Your task to perform on an android device: toggle improve location accuracy Image 0: 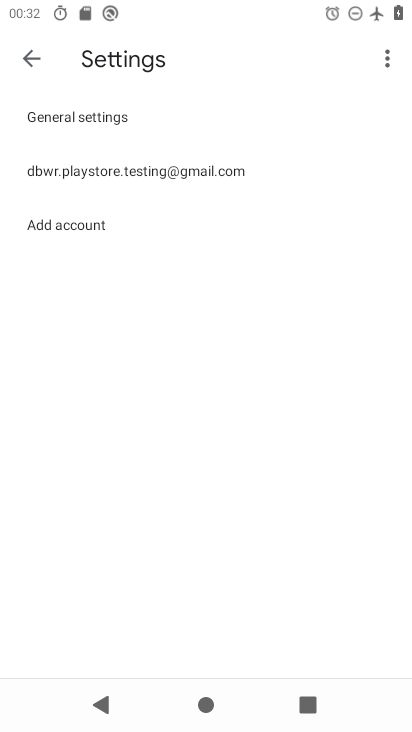
Step 0: click (409, 208)
Your task to perform on an android device: toggle improve location accuracy Image 1: 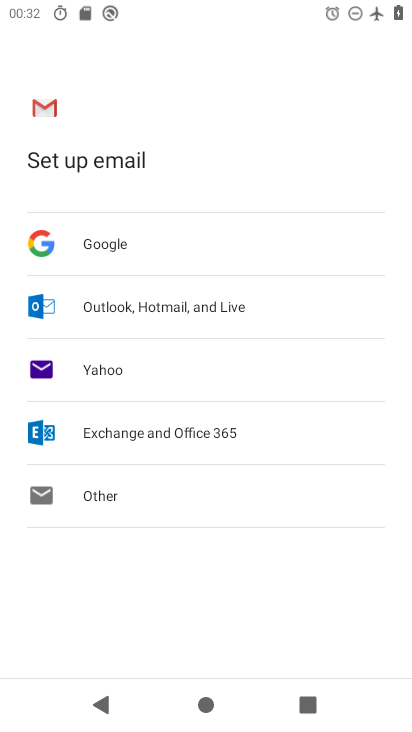
Step 1: press home button
Your task to perform on an android device: toggle improve location accuracy Image 2: 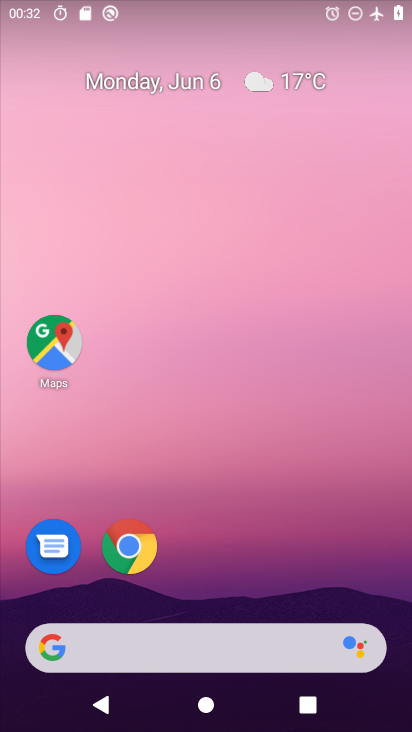
Step 2: drag from (174, 569) to (183, 1)
Your task to perform on an android device: toggle improve location accuracy Image 3: 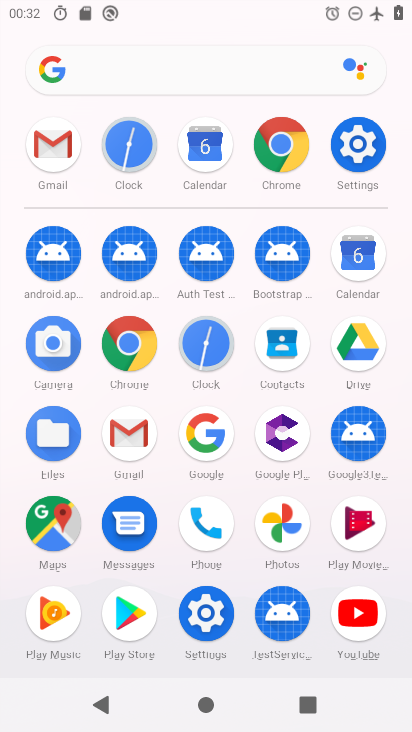
Step 3: click (204, 610)
Your task to perform on an android device: toggle improve location accuracy Image 4: 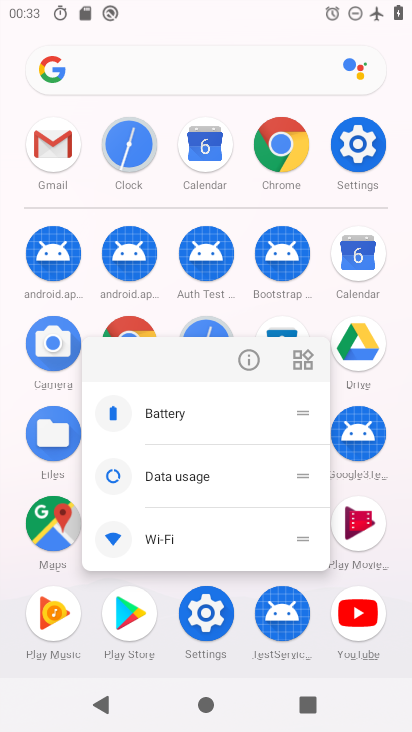
Step 4: click (254, 346)
Your task to perform on an android device: toggle improve location accuracy Image 5: 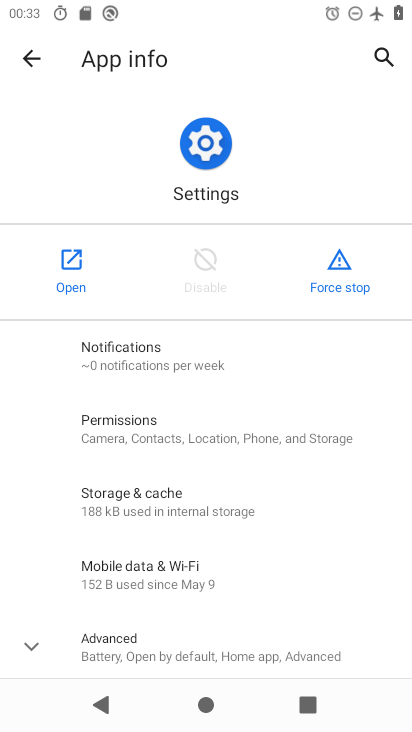
Step 5: click (60, 273)
Your task to perform on an android device: toggle improve location accuracy Image 6: 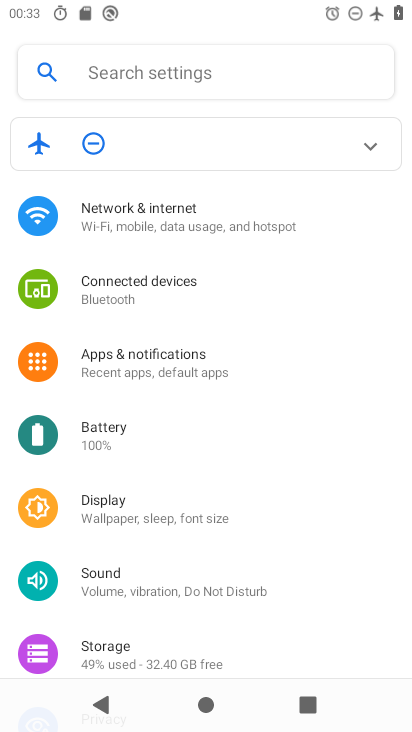
Step 6: click (257, 94)
Your task to perform on an android device: toggle improve location accuracy Image 7: 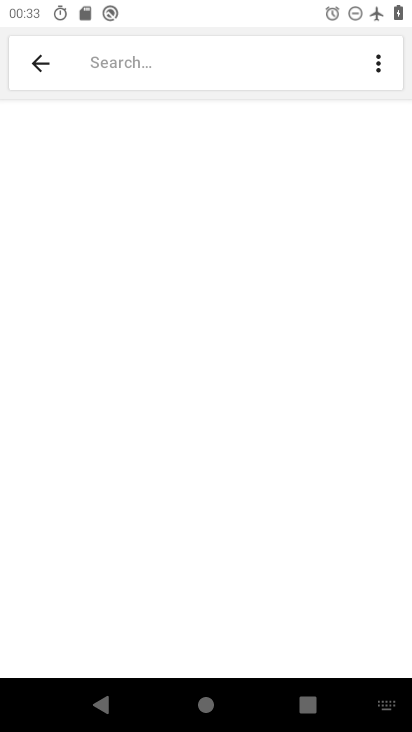
Step 7: drag from (212, 536) to (326, 4)
Your task to perform on an android device: toggle improve location accuracy Image 8: 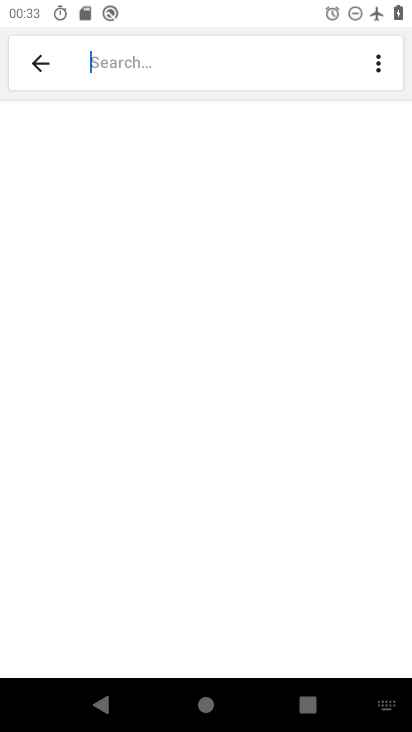
Step 8: click (34, 62)
Your task to perform on an android device: toggle improve location accuracy Image 9: 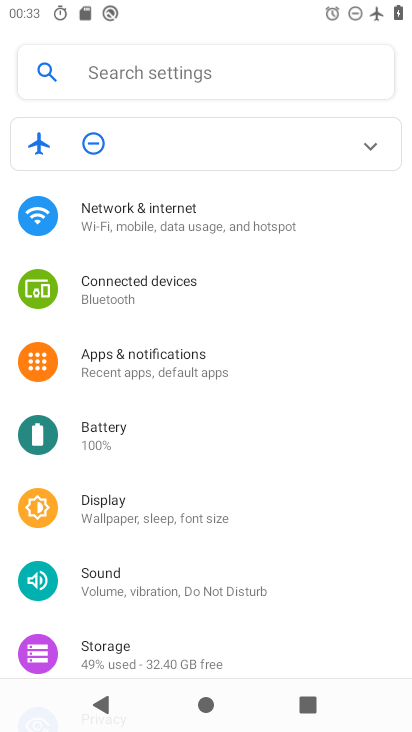
Step 9: drag from (182, 560) to (272, 18)
Your task to perform on an android device: toggle improve location accuracy Image 10: 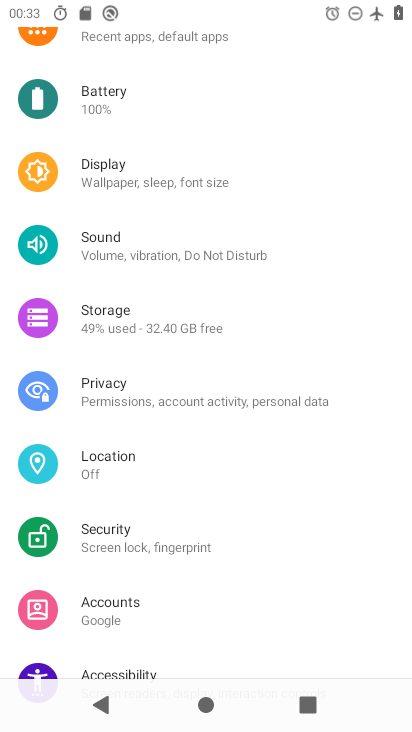
Step 10: drag from (206, 552) to (270, 137)
Your task to perform on an android device: toggle improve location accuracy Image 11: 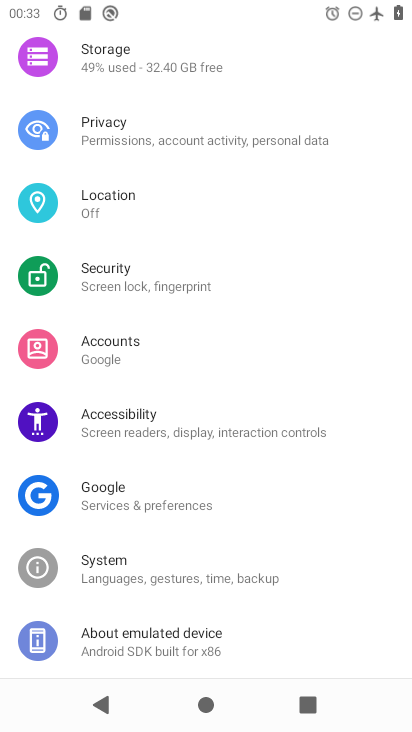
Step 11: click (159, 189)
Your task to perform on an android device: toggle improve location accuracy Image 12: 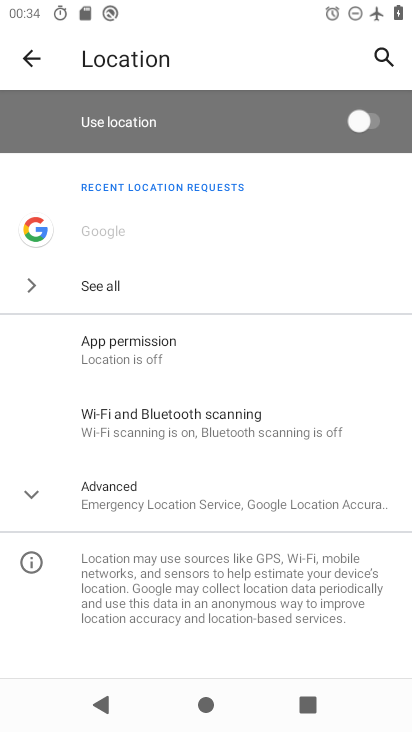
Step 12: click (159, 485)
Your task to perform on an android device: toggle improve location accuracy Image 13: 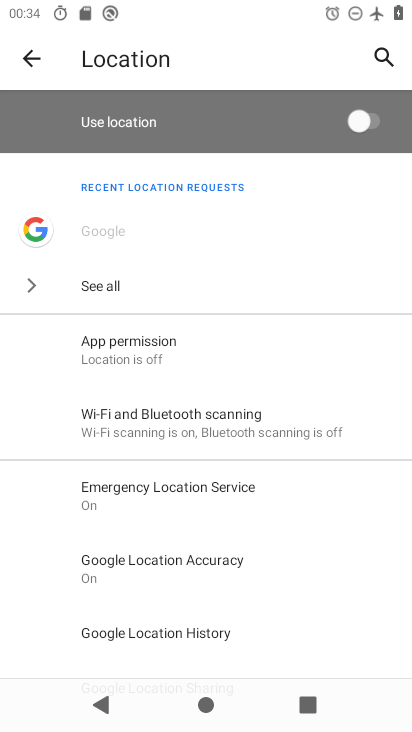
Step 13: click (222, 554)
Your task to perform on an android device: toggle improve location accuracy Image 14: 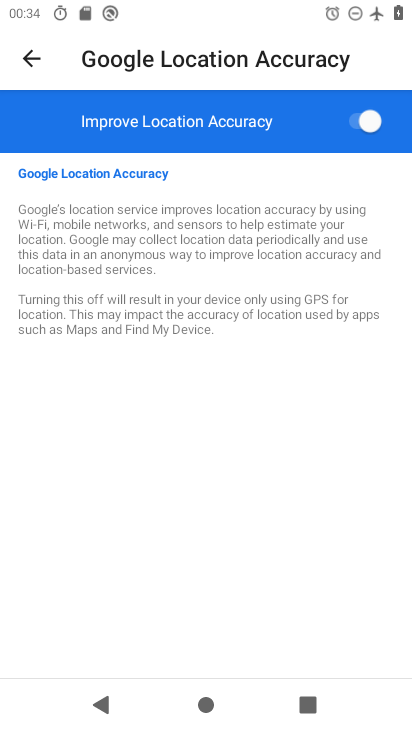
Step 14: drag from (179, 300) to (322, 672)
Your task to perform on an android device: toggle improve location accuracy Image 15: 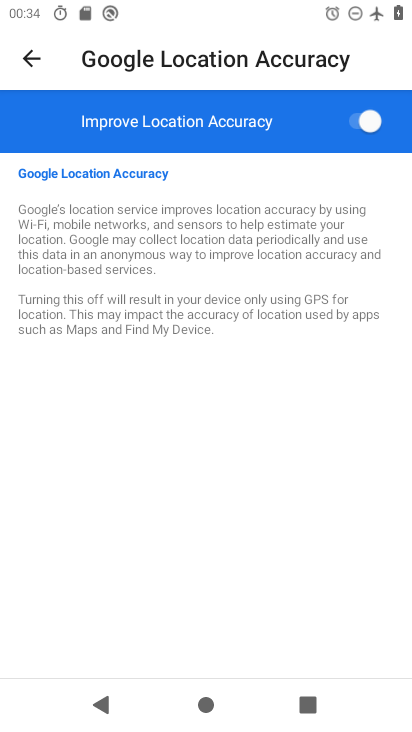
Step 15: click (367, 131)
Your task to perform on an android device: toggle improve location accuracy Image 16: 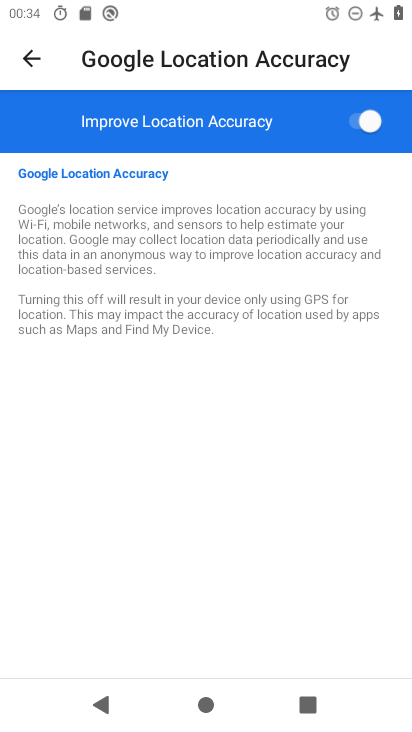
Step 16: task complete